Your task to perform on an android device: empty trash in google photos Image 0: 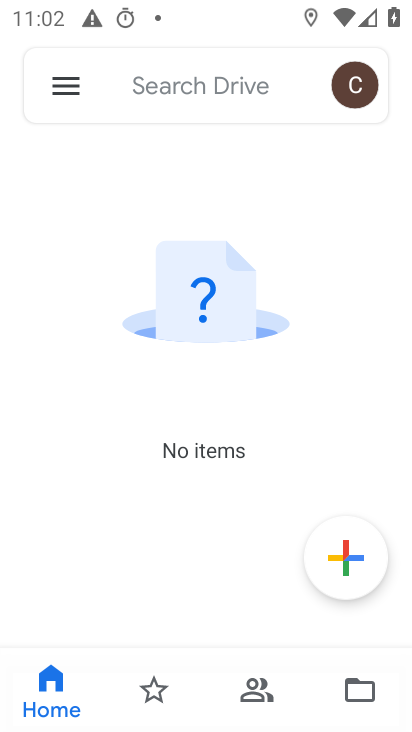
Step 0: press home button
Your task to perform on an android device: empty trash in google photos Image 1: 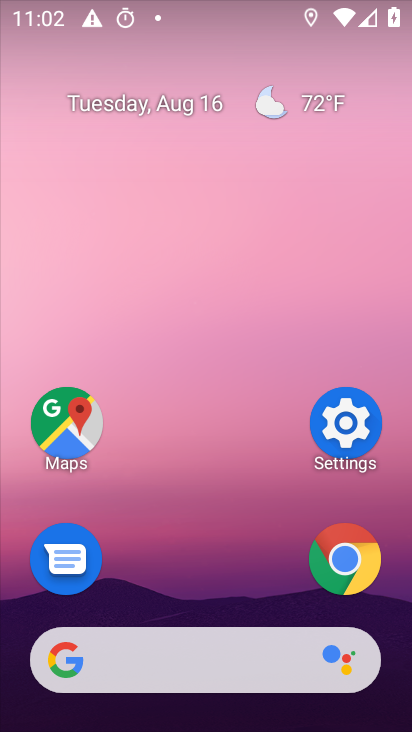
Step 1: drag from (170, 624) to (265, 162)
Your task to perform on an android device: empty trash in google photos Image 2: 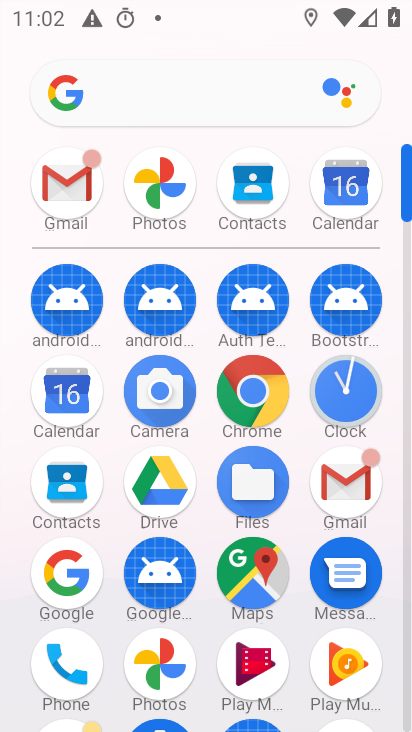
Step 2: click (144, 195)
Your task to perform on an android device: empty trash in google photos Image 3: 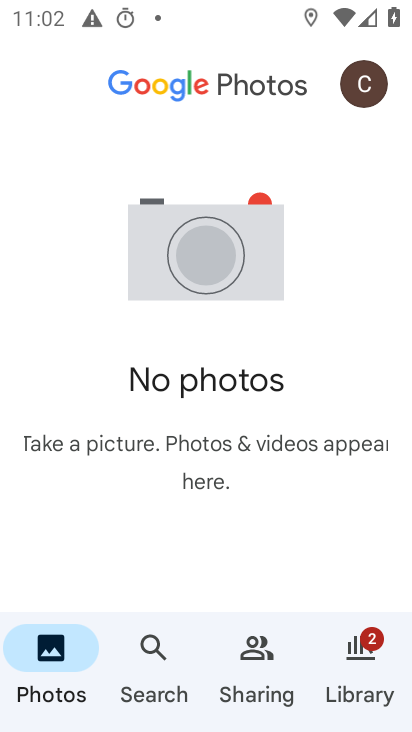
Step 3: click (359, 667)
Your task to perform on an android device: empty trash in google photos Image 4: 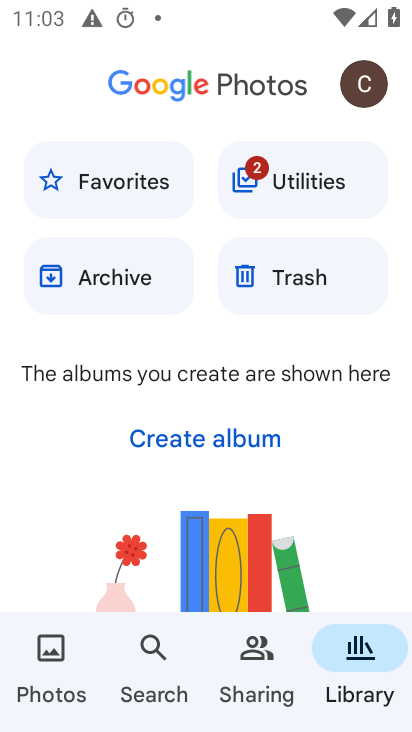
Step 4: click (316, 267)
Your task to perform on an android device: empty trash in google photos Image 5: 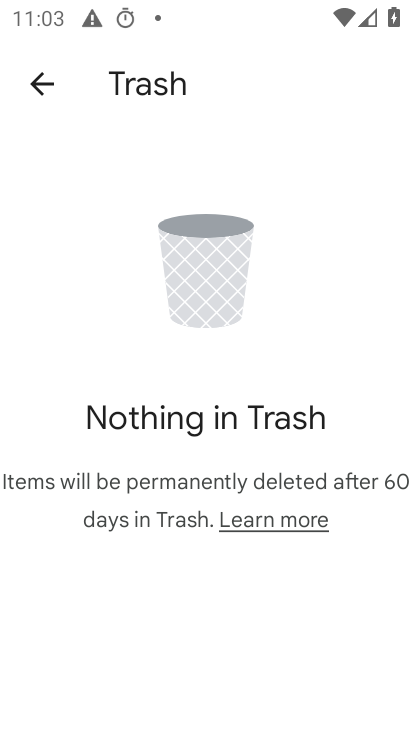
Step 5: task complete